Your task to perform on an android device: toggle location history Image 0: 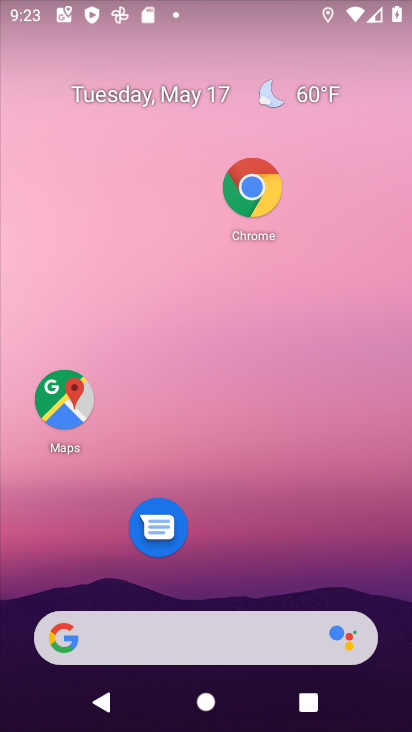
Step 0: drag from (313, 594) to (307, 119)
Your task to perform on an android device: toggle location history Image 1: 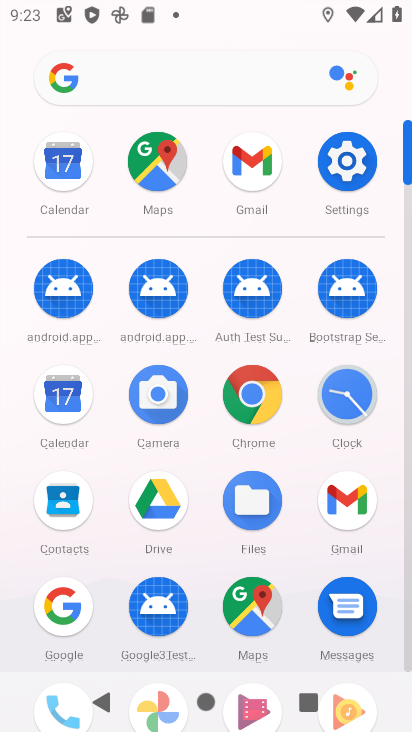
Step 1: click (328, 186)
Your task to perform on an android device: toggle location history Image 2: 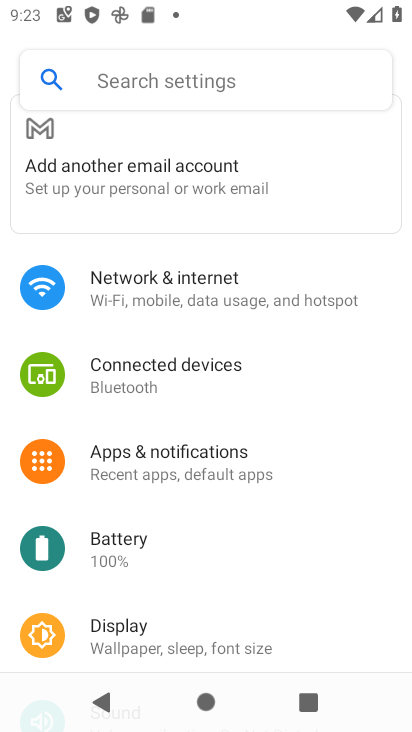
Step 2: drag from (191, 559) to (167, 173)
Your task to perform on an android device: toggle location history Image 3: 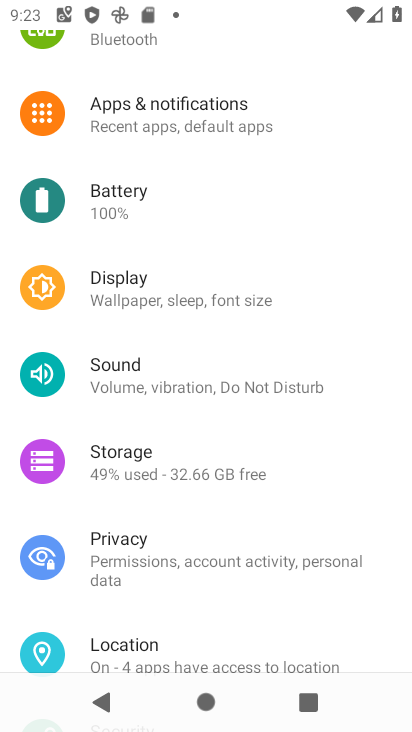
Step 3: click (195, 619)
Your task to perform on an android device: toggle location history Image 4: 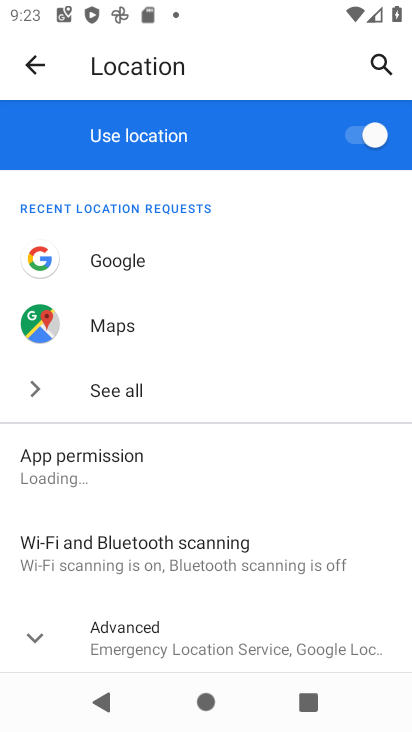
Step 4: click (379, 124)
Your task to perform on an android device: toggle location history Image 5: 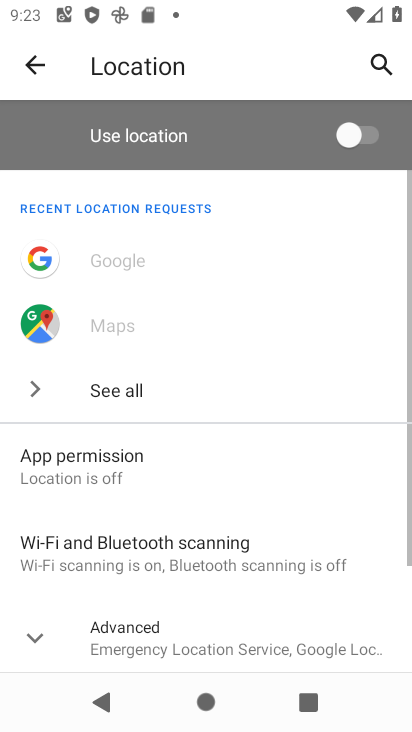
Step 5: click (369, 123)
Your task to perform on an android device: toggle location history Image 6: 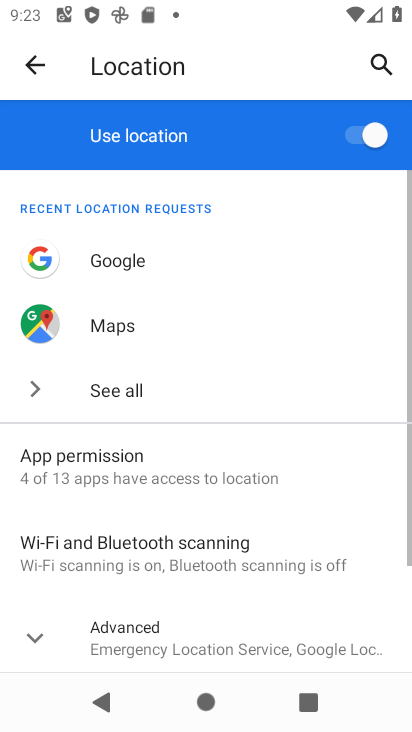
Step 6: drag from (260, 516) to (260, 270)
Your task to perform on an android device: toggle location history Image 7: 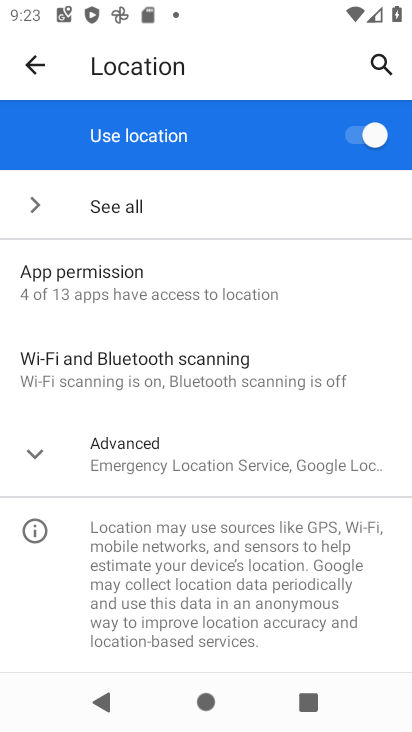
Step 7: click (216, 484)
Your task to perform on an android device: toggle location history Image 8: 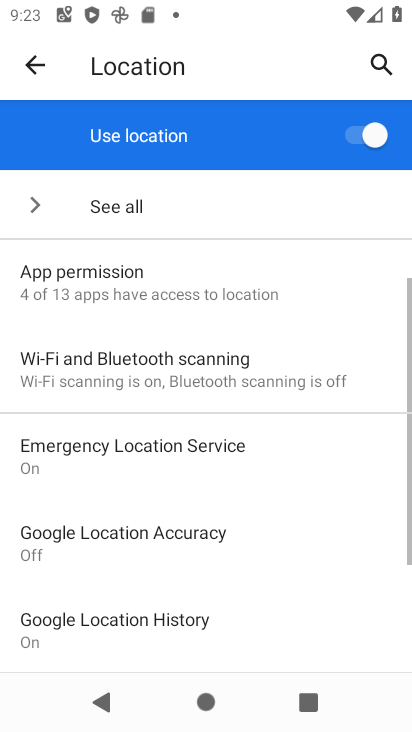
Step 8: drag from (226, 558) to (237, 395)
Your task to perform on an android device: toggle location history Image 9: 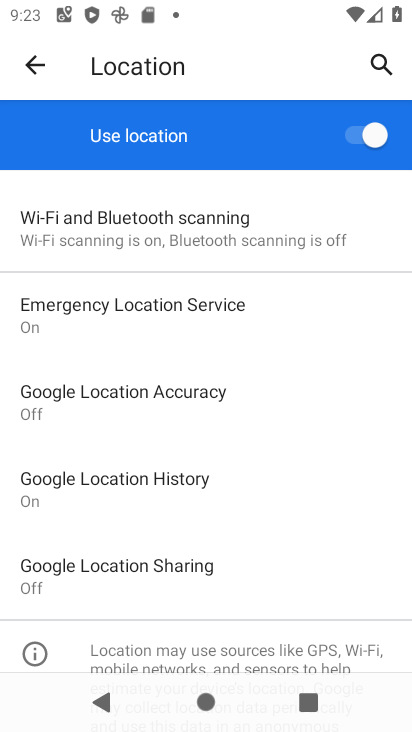
Step 9: click (225, 408)
Your task to perform on an android device: toggle location history Image 10: 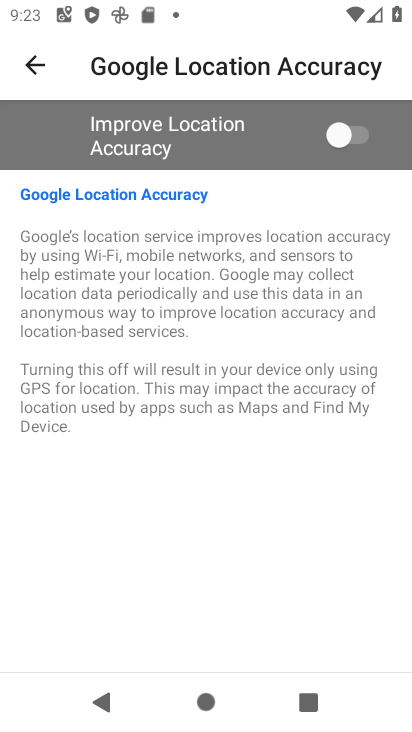
Step 10: click (44, 59)
Your task to perform on an android device: toggle location history Image 11: 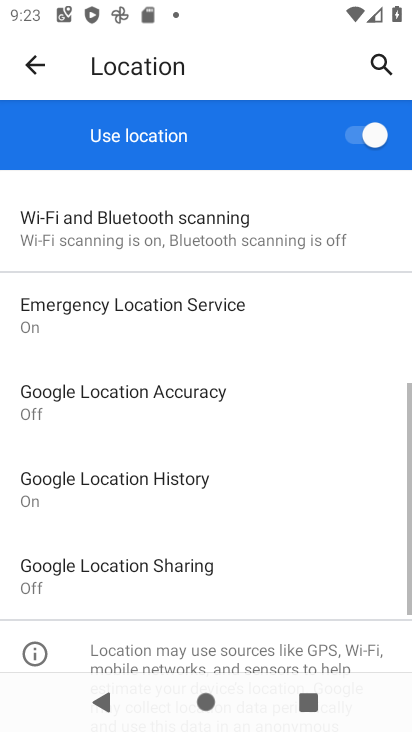
Step 11: drag from (156, 557) to (164, 442)
Your task to perform on an android device: toggle location history Image 12: 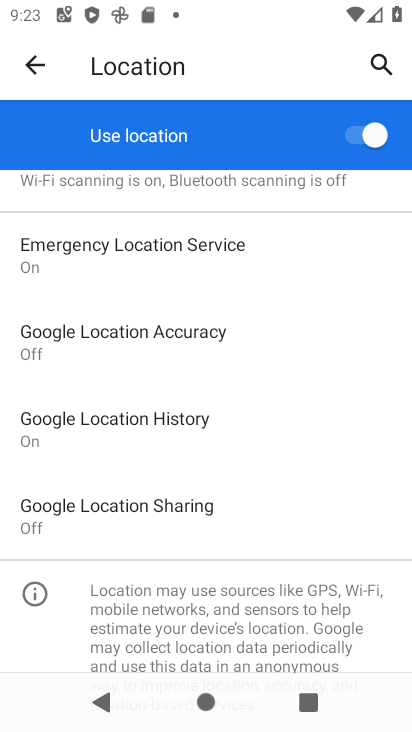
Step 12: click (164, 442)
Your task to perform on an android device: toggle location history Image 13: 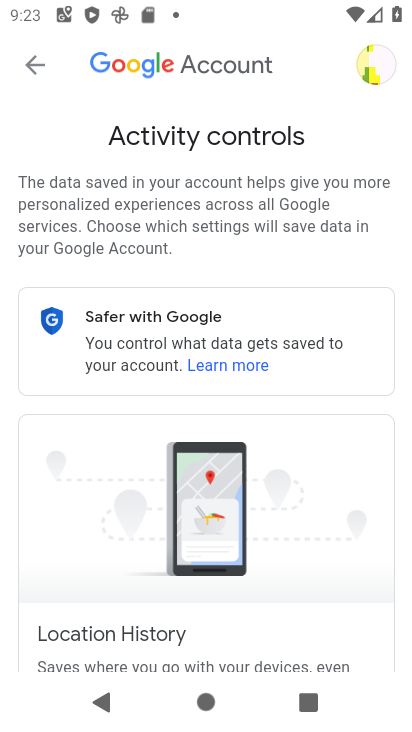
Step 13: drag from (287, 531) to (283, 228)
Your task to perform on an android device: toggle location history Image 14: 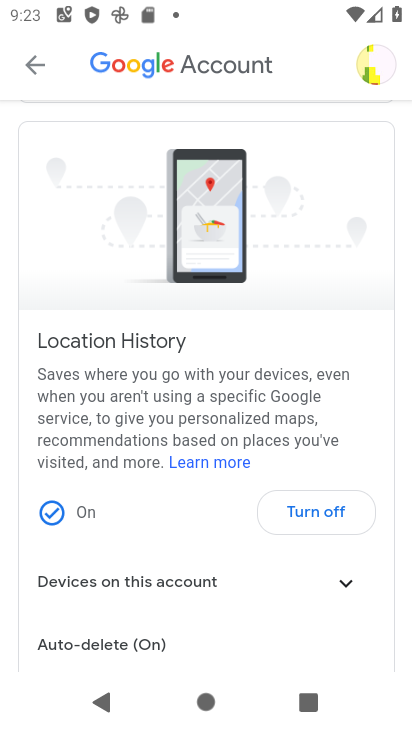
Step 14: click (337, 511)
Your task to perform on an android device: toggle location history Image 15: 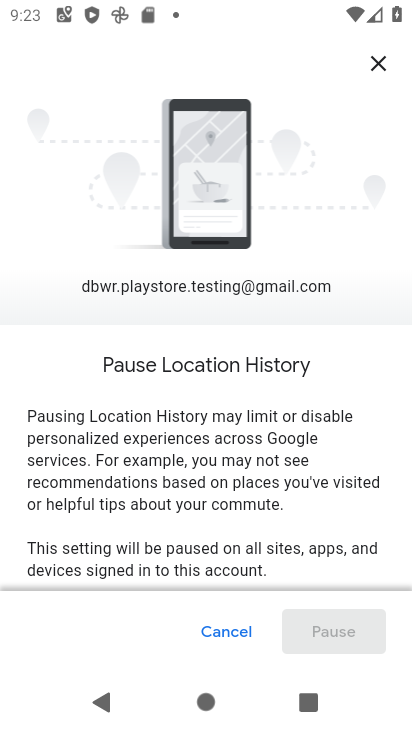
Step 15: drag from (337, 564) to (281, 65)
Your task to perform on an android device: toggle location history Image 16: 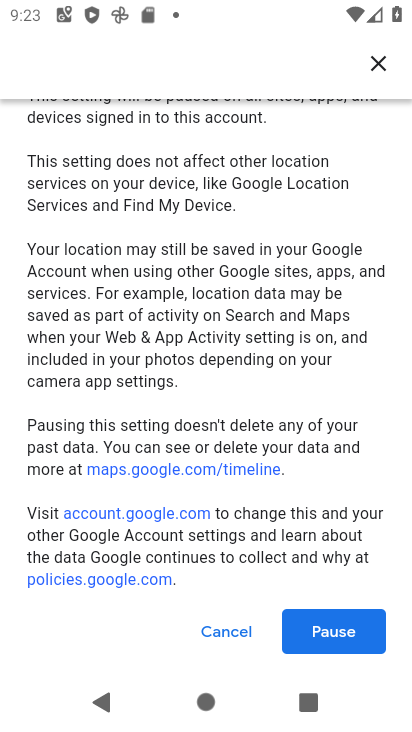
Step 16: click (336, 629)
Your task to perform on an android device: toggle location history Image 17: 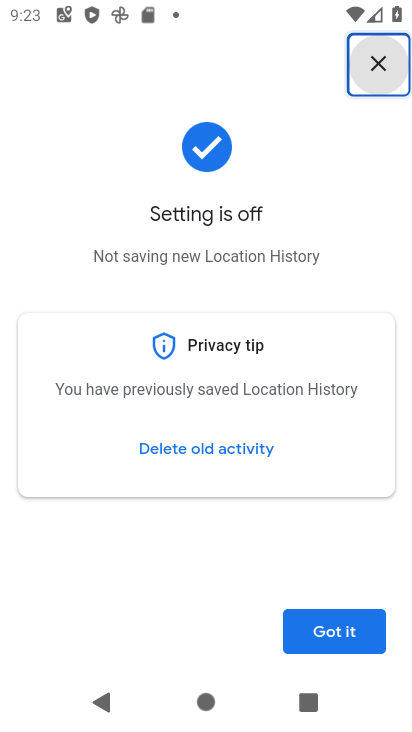
Step 17: task complete